Your task to perform on an android device: add a contact Image 0: 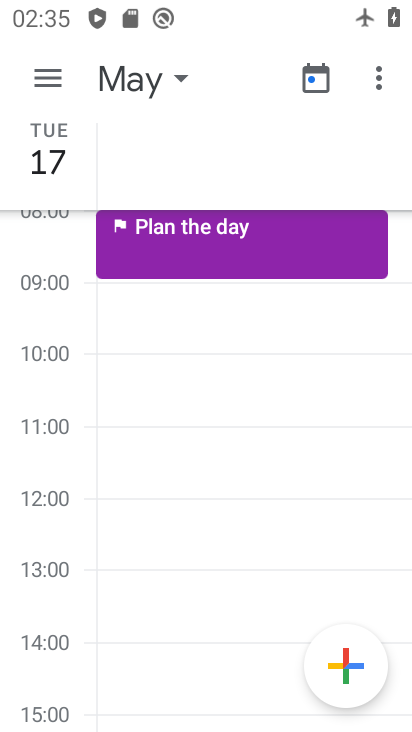
Step 0: press home button
Your task to perform on an android device: add a contact Image 1: 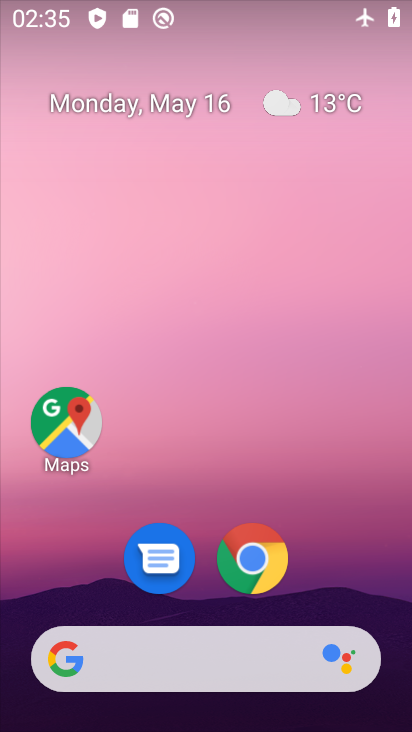
Step 1: drag from (219, 604) to (154, 218)
Your task to perform on an android device: add a contact Image 2: 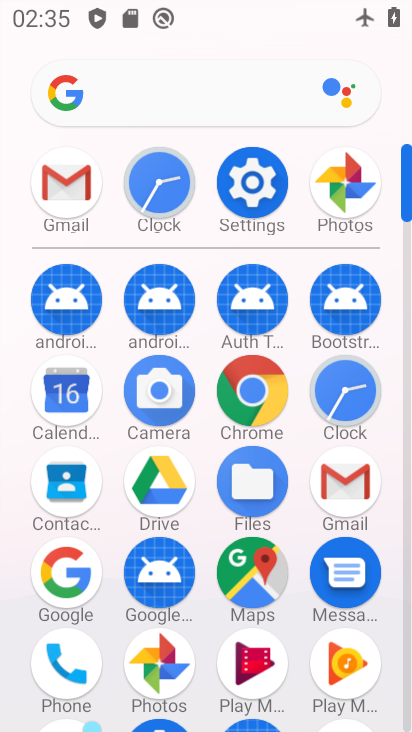
Step 2: click (82, 681)
Your task to perform on an android device: add a contact Image 3: 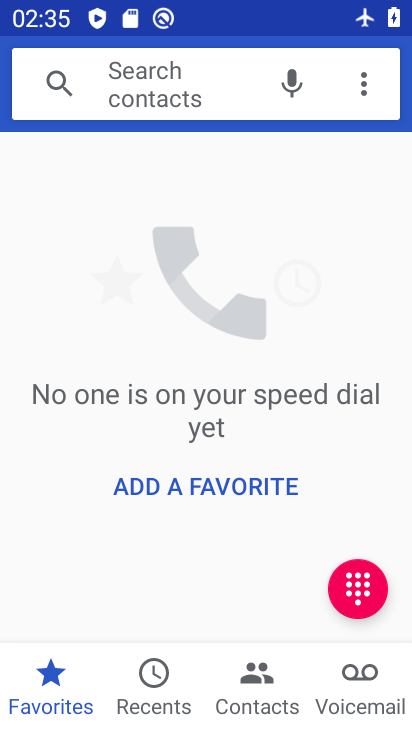
Step 3: click (257, 672)
Your task to perform on an android device: add a contact Image 4: 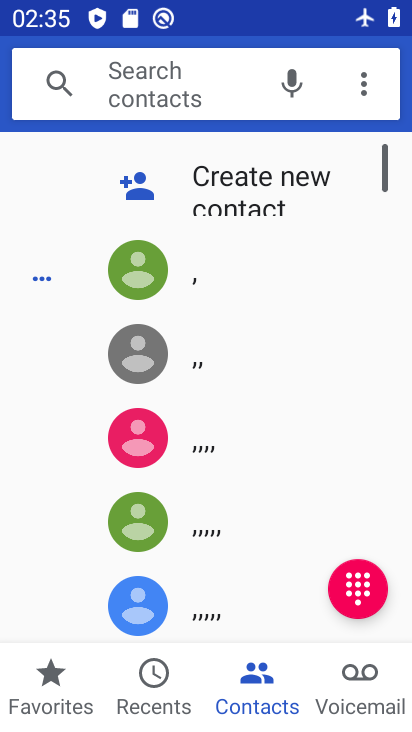
Step 4: click (238, 209)
Your task to perform on an android device: add a contact Image 5: 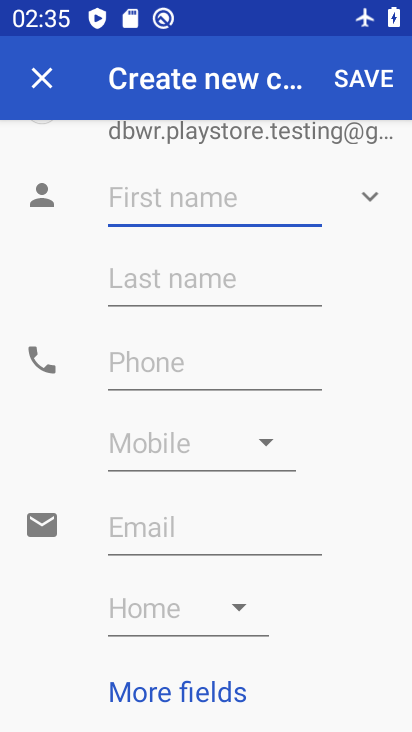
Step 5: type "bik"
Your task to perform on an android device: add a contact Image 6: 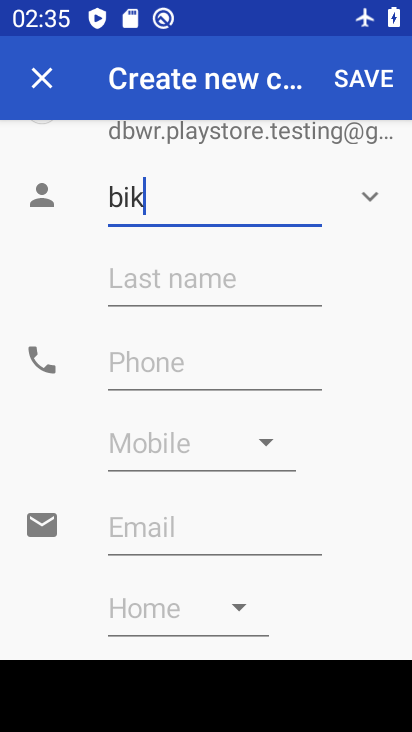
Step 6: type ""
Your task to perform on an android device: add a contact Image 7: 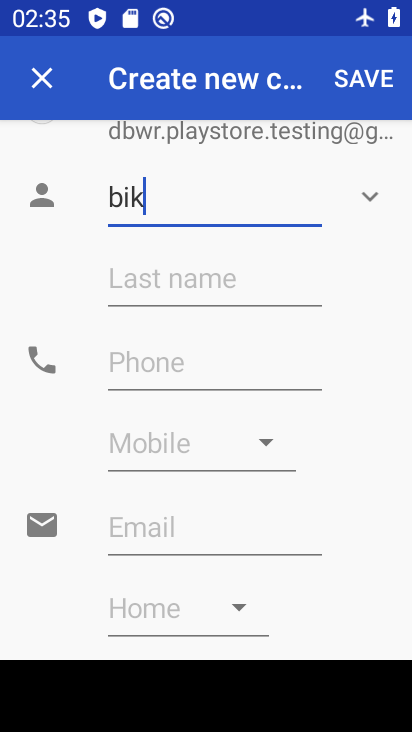
Step 7: click (153, 368)
Your task to perform on an android device: add a contact Image 8: 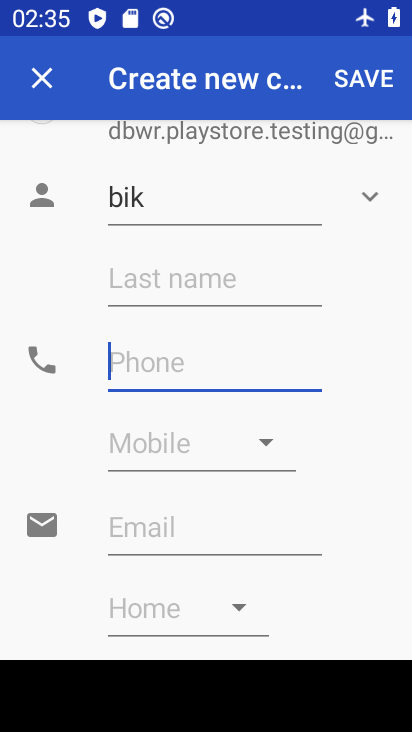
Step 8: type "543454"
Your task to perform on an android device: add a contact Image 9: 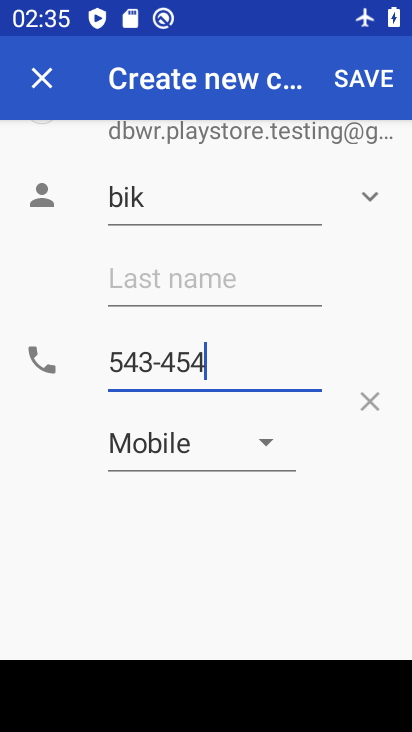
Step 9: type ""
Your task to perform on an android device: add a contact Image 10: 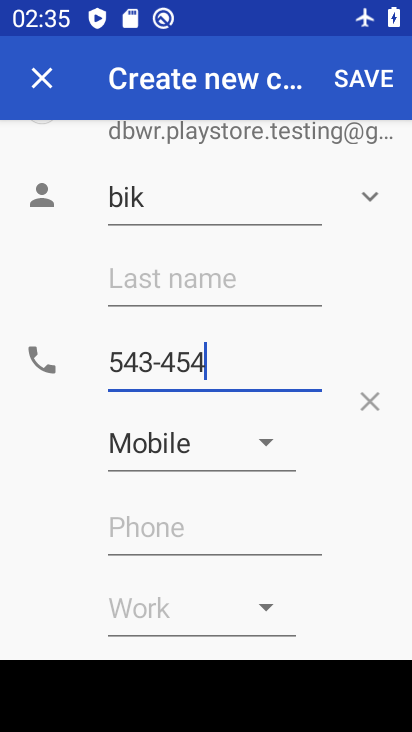
Step 10: click (346, 69)
Your task to perform on an android device: add a contact Image 11: 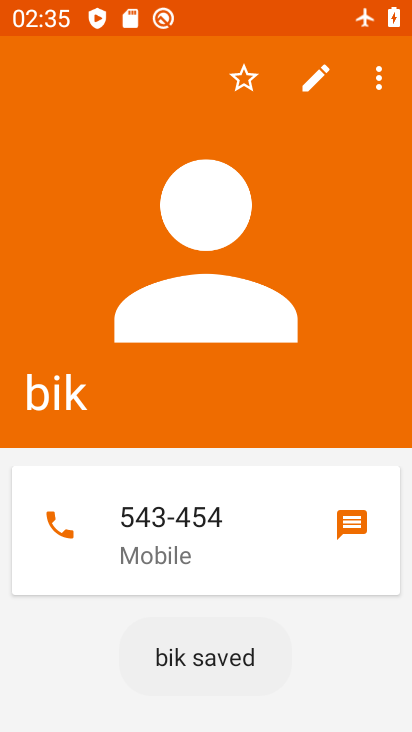
Step 11: task complete